Your task to perform on an android device: What is the recent news? Image 0: 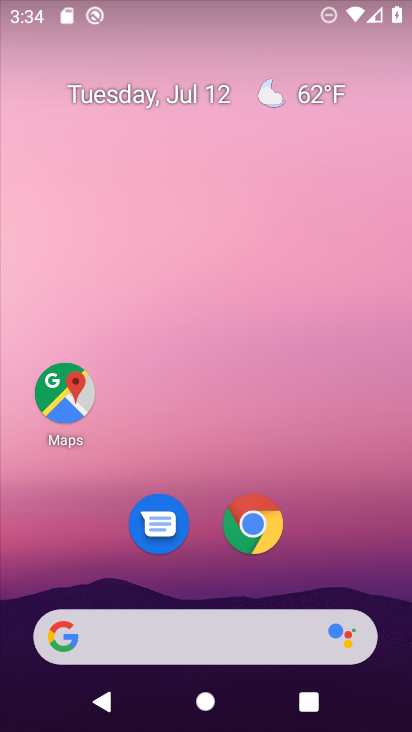
Step 0: click (259, 650)
Your task to perform on an android device: What is the recent news? Image 1: 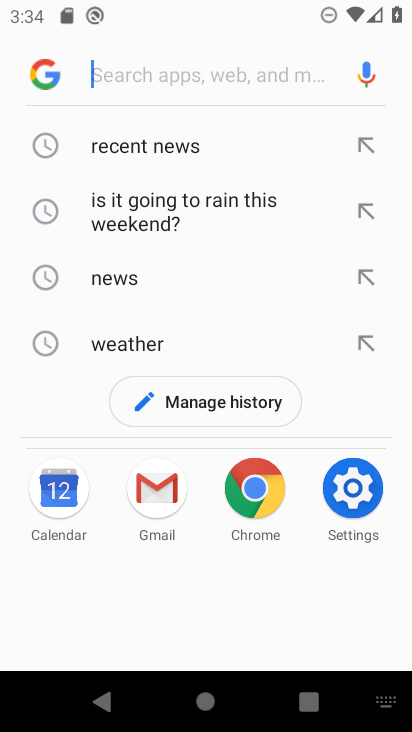
Step 1: click (129, 279)
Your task to perform on an android device: What is the recent news? Image 2: 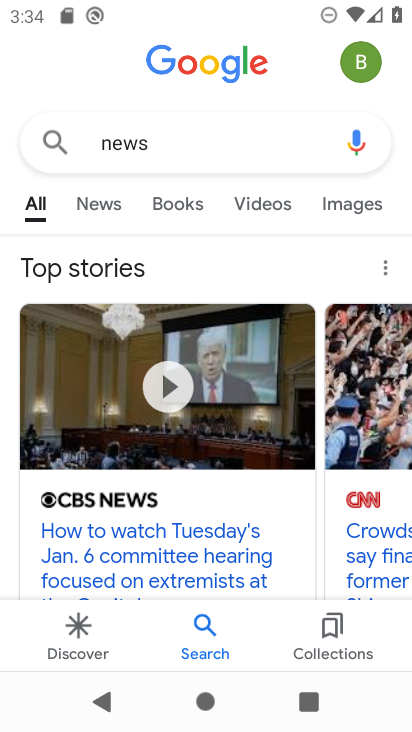
Step 2: click (92, 190)
Your task to perform on an android device: What is the recent news? Image 3: 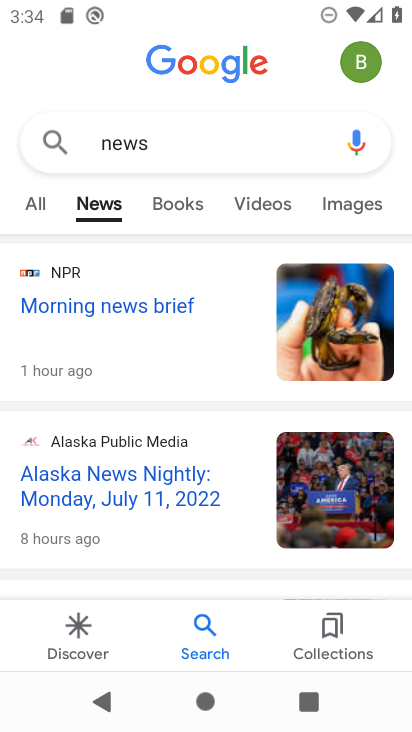
Step 3: task complete